Your task to perform on an android device: Set the phone to "Do not disturb". Image 0: 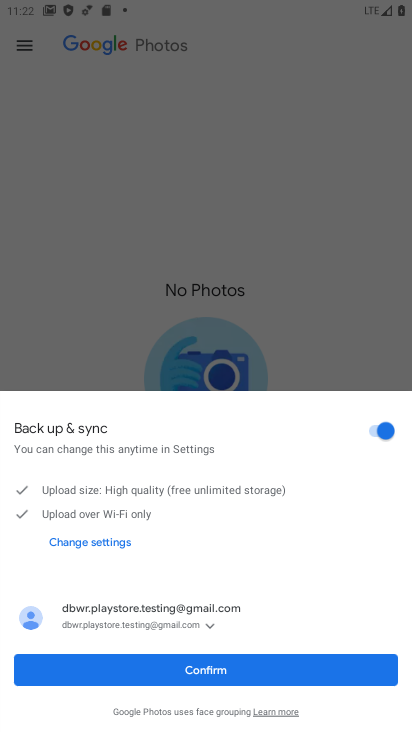
Step 0: press home button
Your task to perform on an android device: Set the phone to "Do not disturb". Image 1: 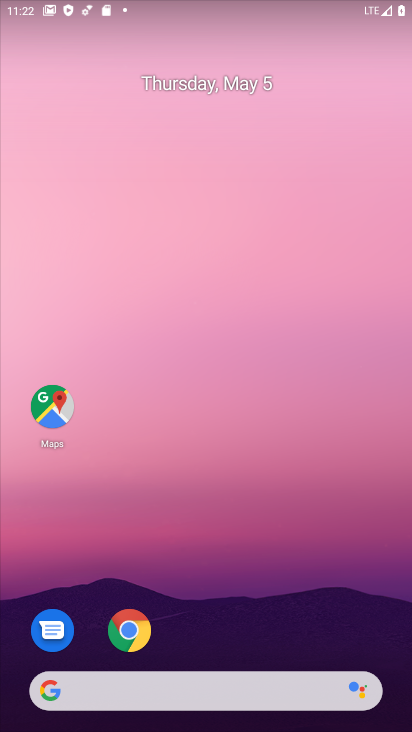
Step 1: drag from (163, 1) to (207, 443)
Your task to perform on an android device: Set the phone to "Do not disturb". Image 2: 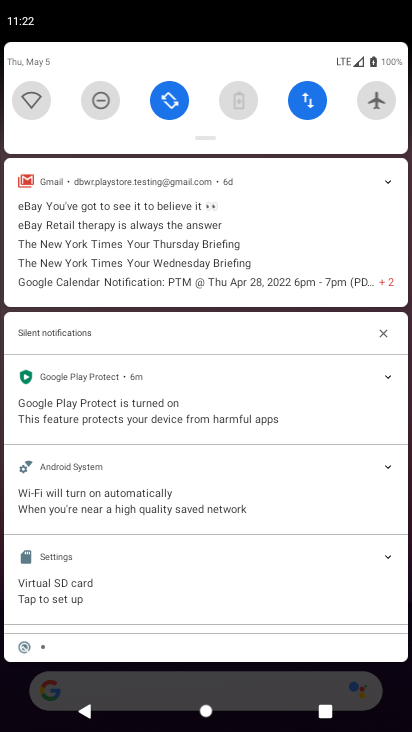
Step 2: click (105, 98)
Your task to perform on an android device: Set the phone to "Do not disturb". Image 3: 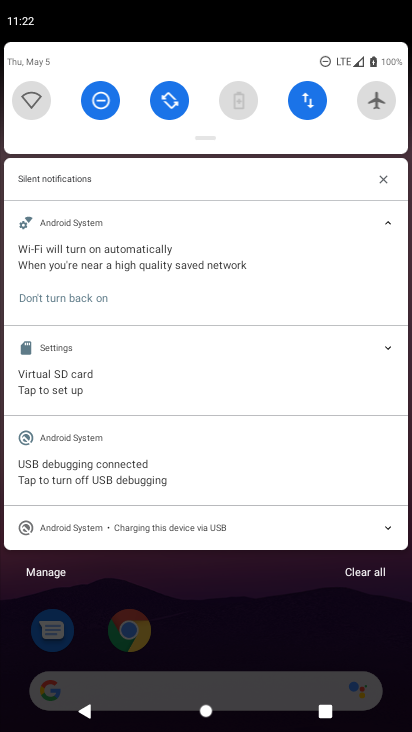
Step 3: task complete